Your task to perform on an android device: find which apps use the phone's location Image 0: 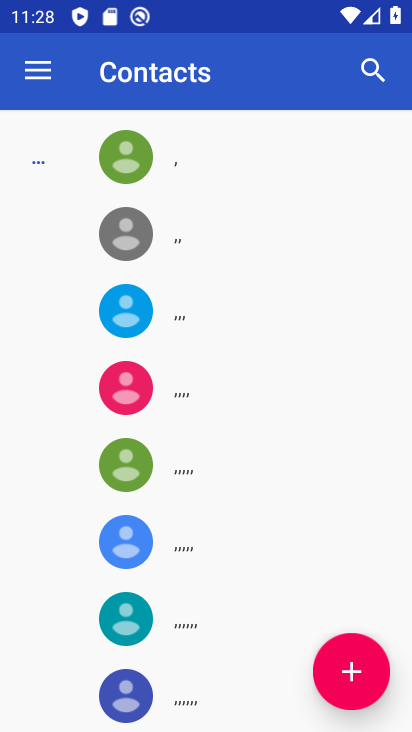
Step 0: press home button
Your task to perform on an android device: find which apps use the phone's location Image 1: 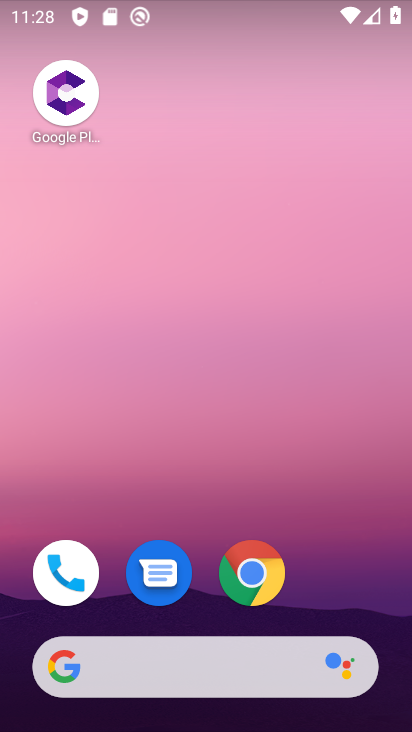
Step 1: drag from (361, 546) to (371, 15)
Your task to perform on an android device: find which apps use the phone's location Image 2: 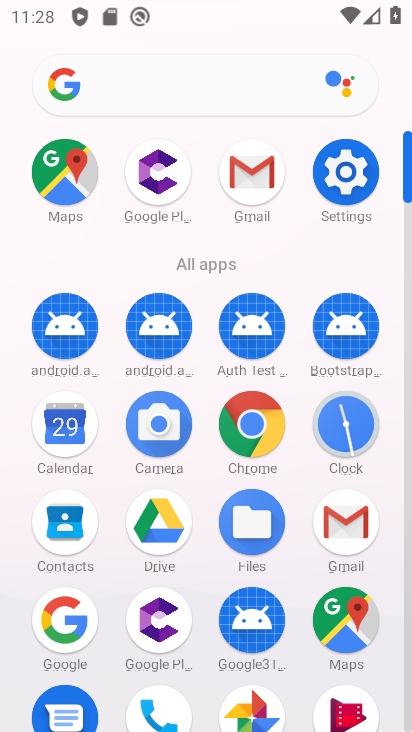
Step 2: click (346, 188)
Your task to perform on an android device: find which apps use the phone's location Image 3: 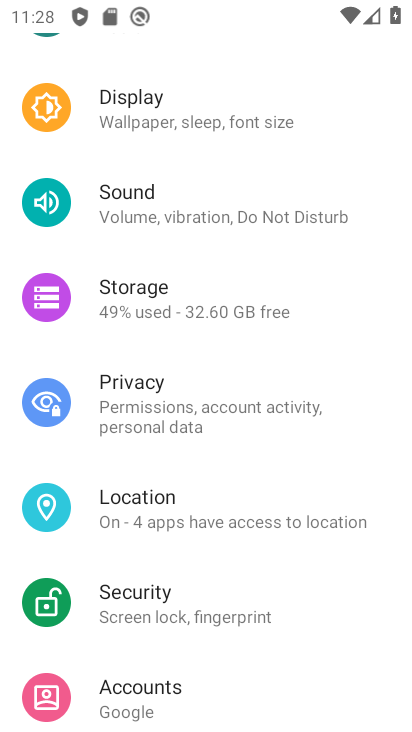
Step 3: click (185, 492)
Your task to perform on an android device: find which apps use the phone's location Image 4: 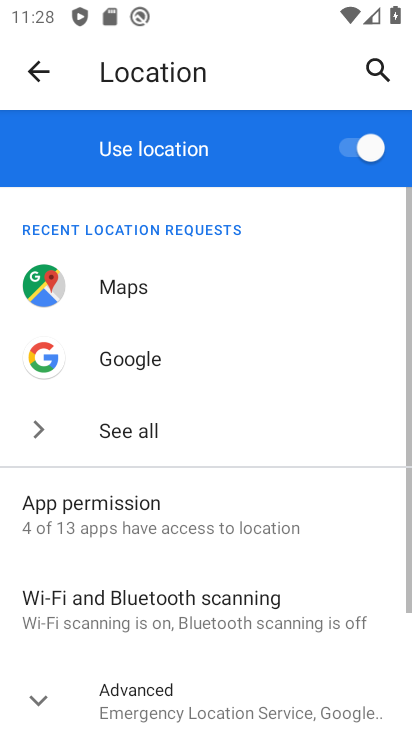
Step 4: click (118, 512)
Your task to perform on an android device: find which apps use the phone's location Image 5: 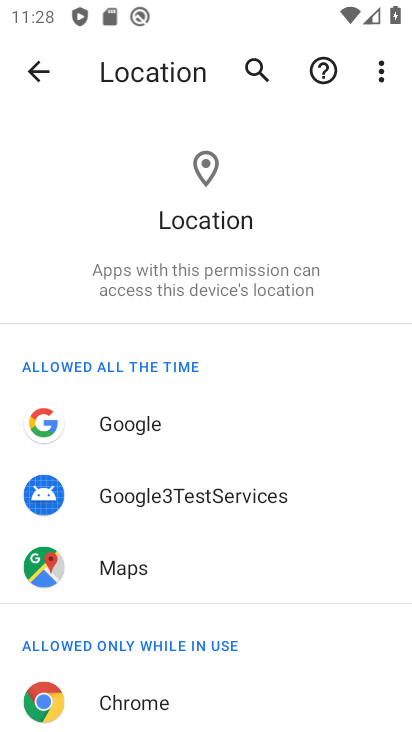
Step 5: task complete